Your task to perform on an android device: set an alarm Image 0: 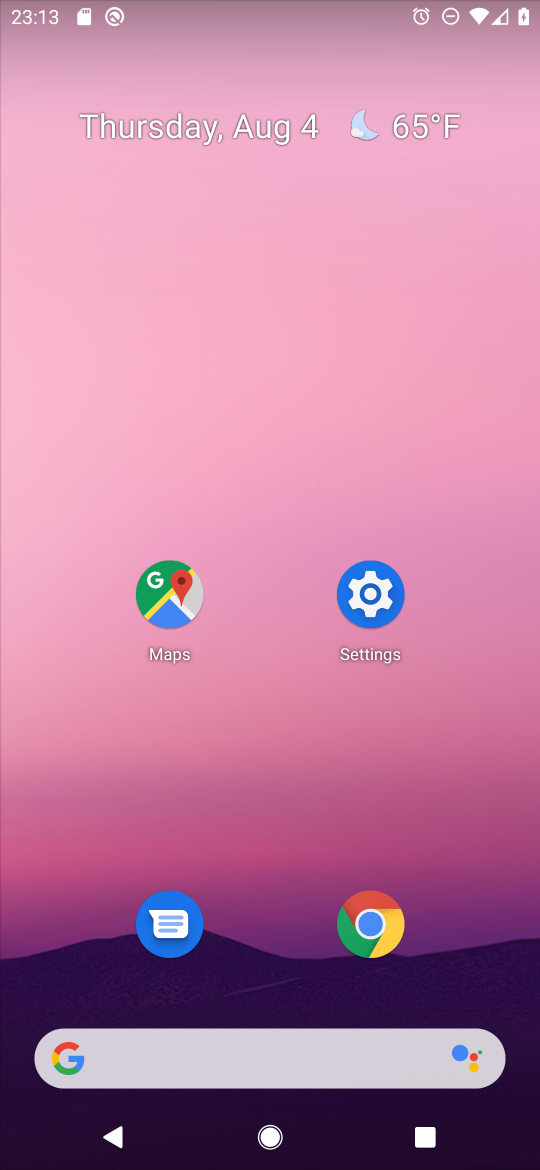
Step 0: press home button
Your task to perform on an android device: set an alarm Image 1: 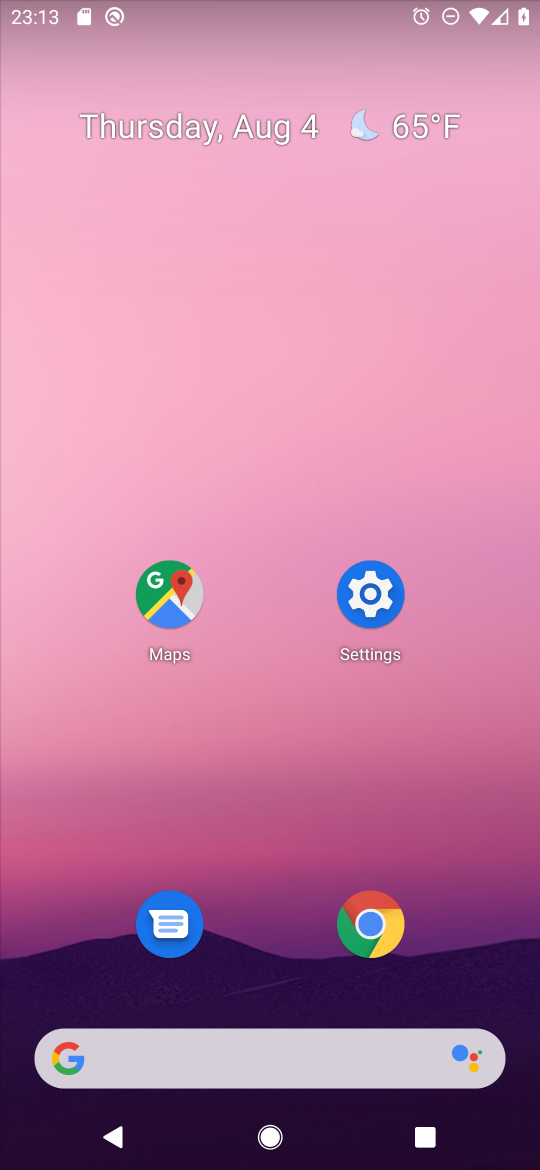
Step 1: drag from (234, 1061) to (362, 216)
Your task to perform on an android device: set an alarm Image 2: 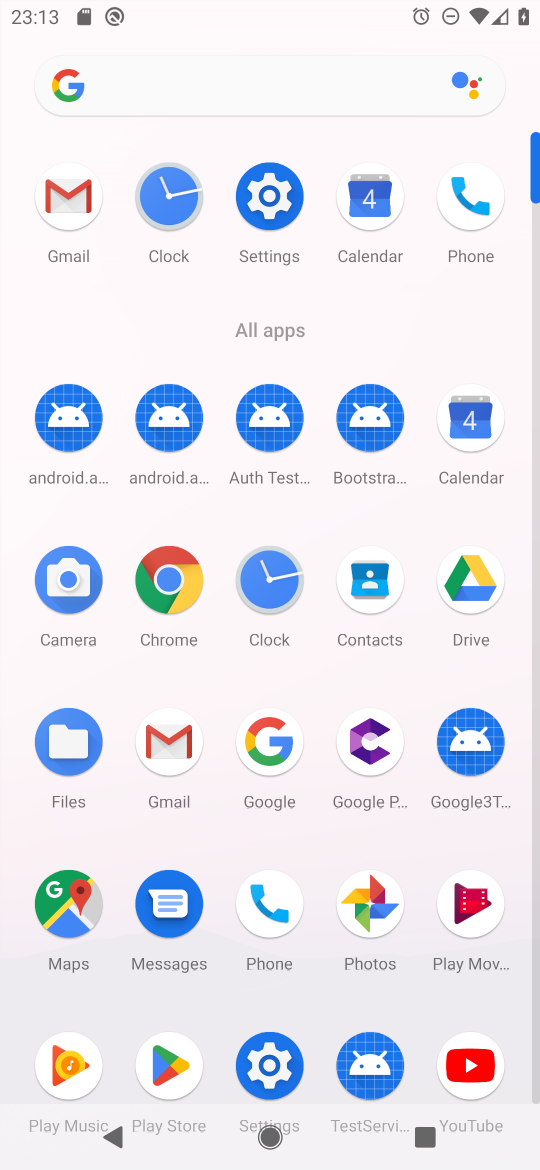
Step 2: click (159, 202)
Your task to perform on an android device: set an alarm Image 3: 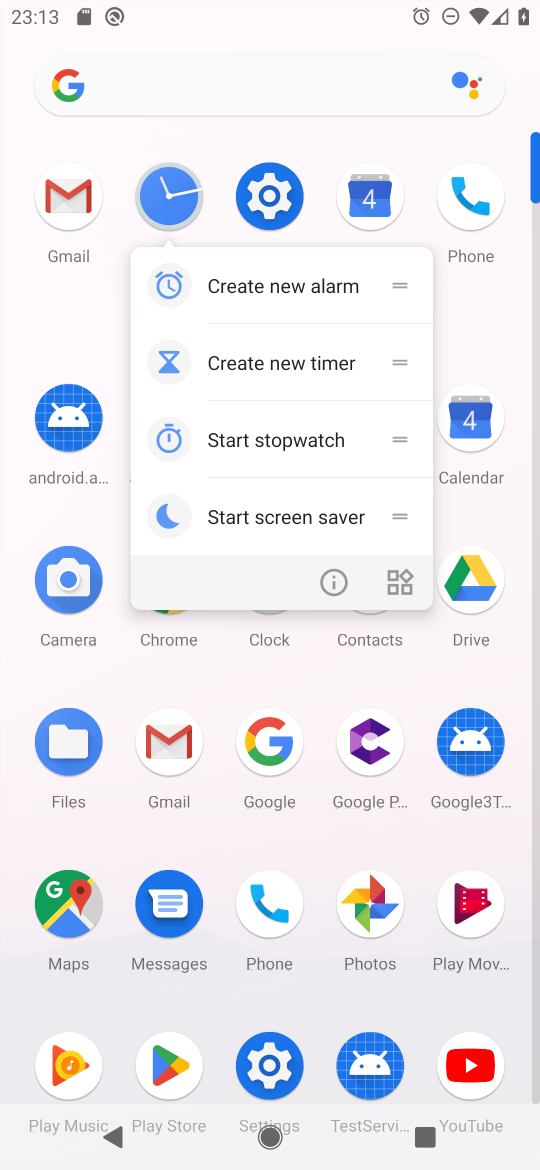
Step 3: click (174, 187)
Your task to perform on an android device: set an alarm Image 4: 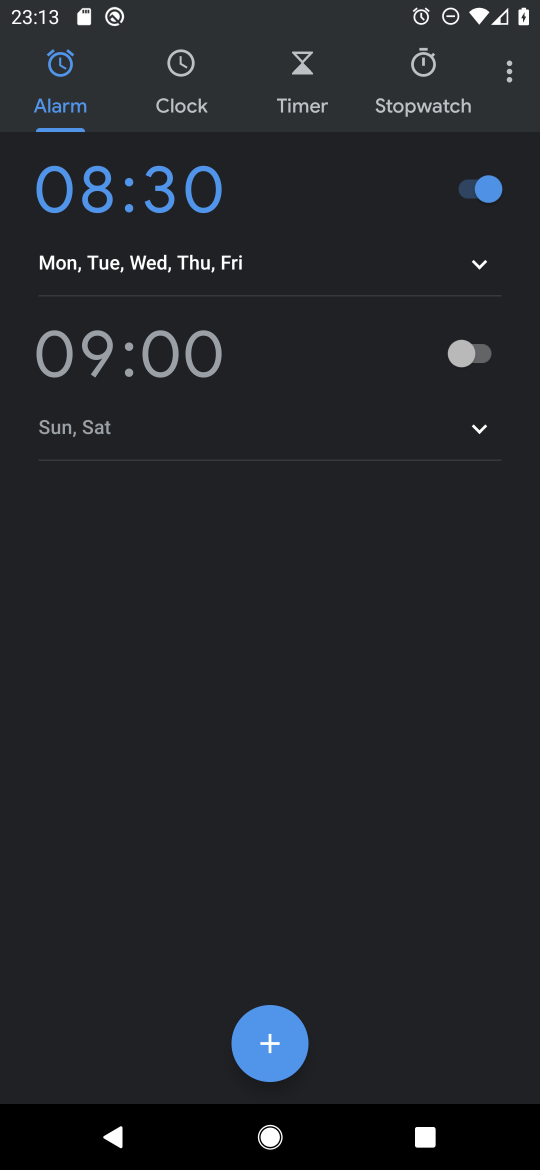
Step 4: click (483, 350)
Your task to perform on an android device: set an alarm Image 5: 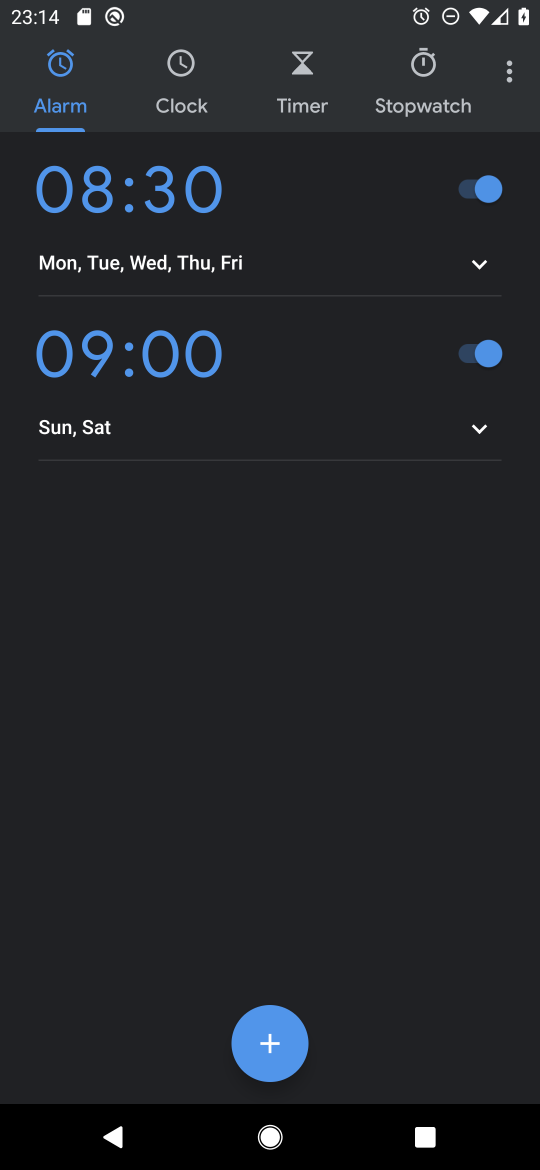
Step 5: task complete